Your task to perform on an android device: Open settings Image 0: 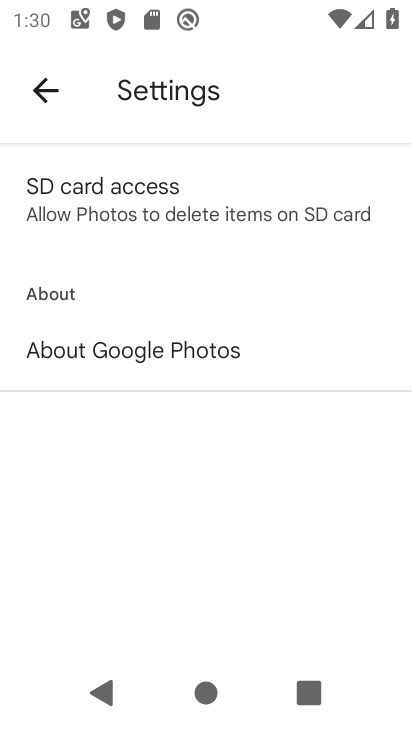
Step 0: press home button
Your task to perform on an android device: Open settings Image 1: 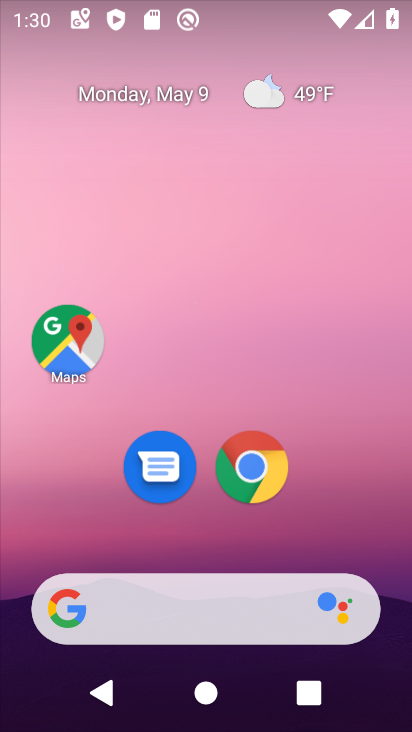
Step 1: drag from (339, 505) to (376, 147)
Your task to perform on an android device: Open settings Image 2: 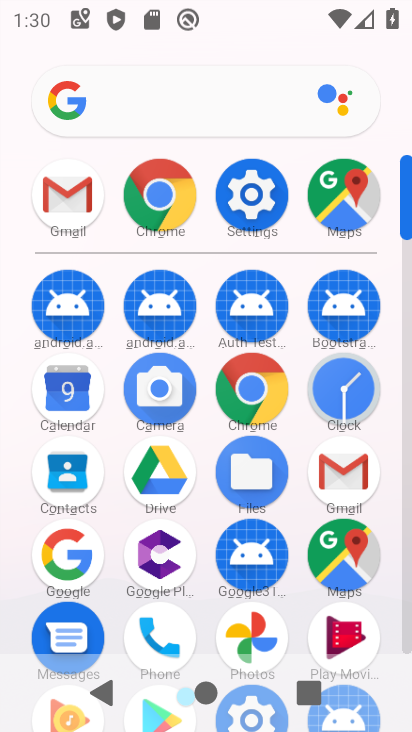
Step 2: click (259, 180)
Your task to perform on an android device: Open settings Image 3: 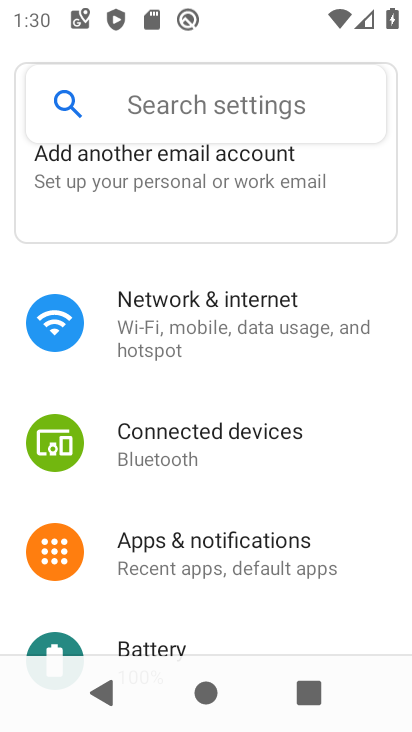
Step 3: task complete